Your task to perform on an android device: Turn off the flashlight Image 0: 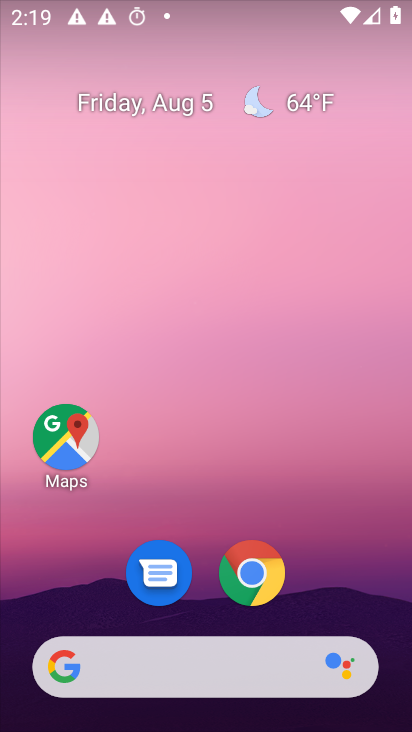
Step 0: press home button
Your task to perform on an android device: Turn off the flashlight Image 1: 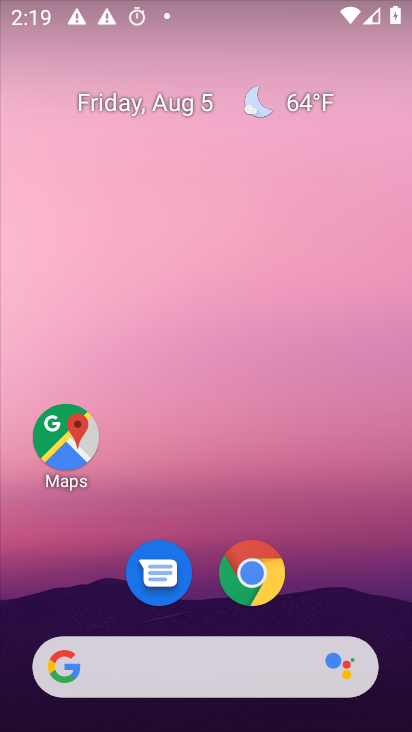
Step 1: drag from (229, 4) to (209, 408)
Your task to perform on an android device: Turn off the flashlight Image 2: 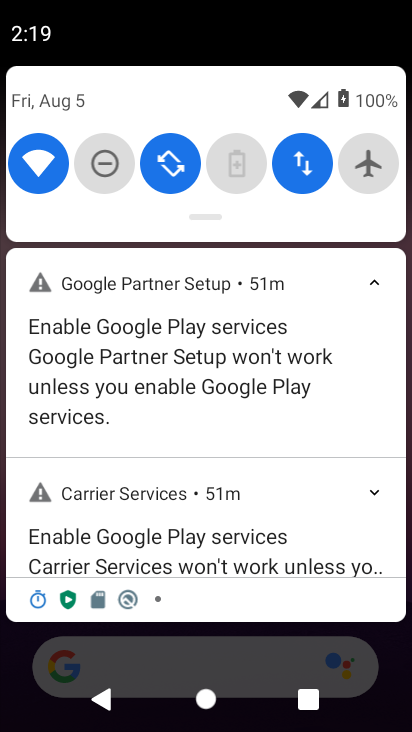
Step 2: drag from (212, 85) to (191, 422)
Your task to perform on an android device: Turn off the flashlight Image 3: 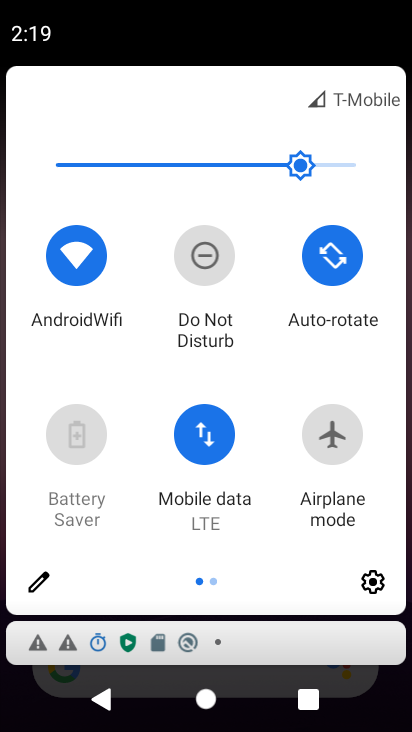
Step 3: click (44, 549)
Your task to perform on an android device: Turn off the flashlight Image 4: 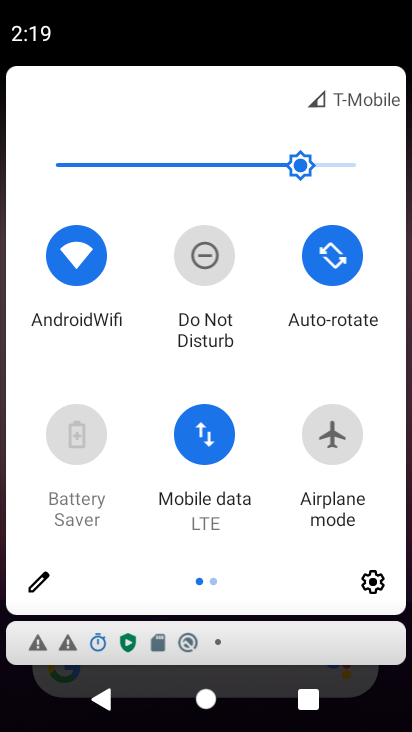
Step 4: click (45, 576)
Your task to perform on an android device: Turn off the flashlight Image 5: 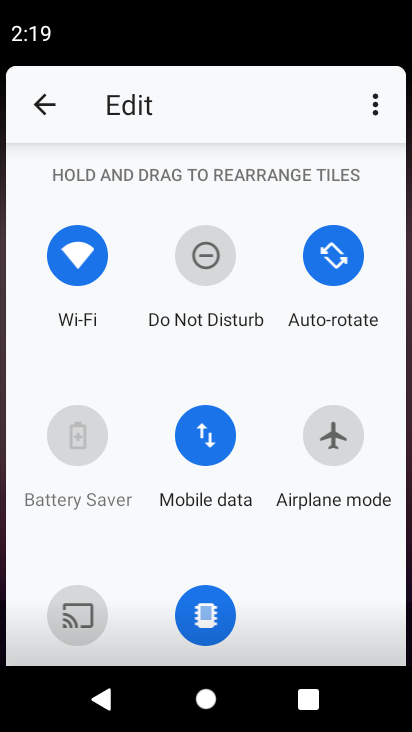
Step 5: task complete